Your task to perform on an android device: turn off picture-in-picture Image 0: 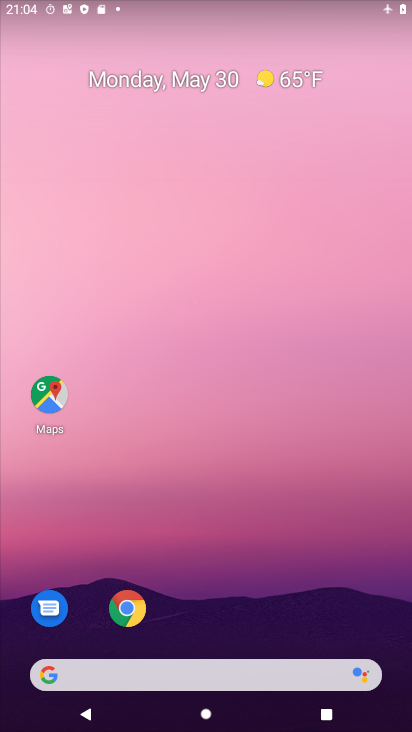
Step 0: click (130, 609)
Your task to perform on an android device: turn off picture-in-picture Image 1: 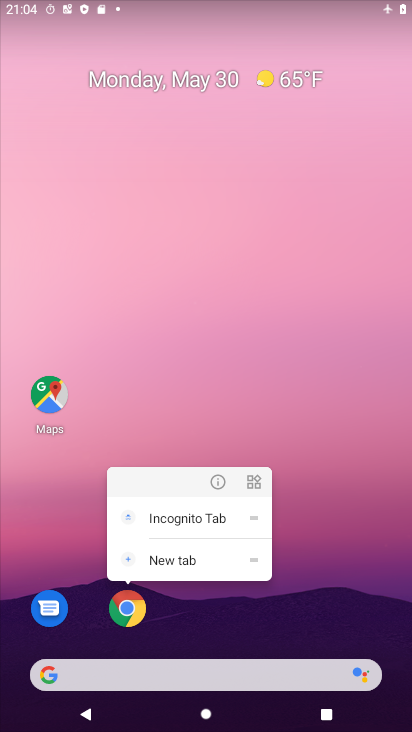
Step 1: click (214, 489)
Your task to perform on an android device: turn off picture-in-picture Image 2: 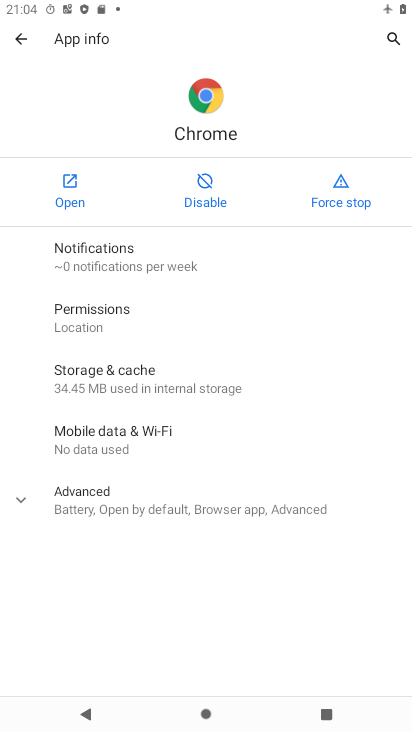
Step 2: click (123, 496)
Your task to perform on an android device: turn off picture-in-picture Image 3: 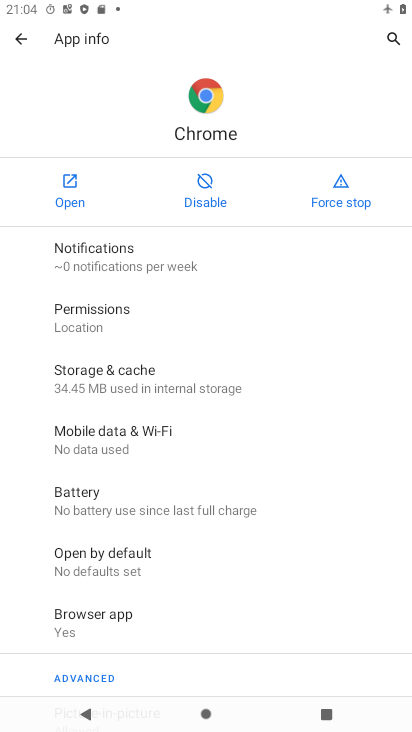
Step 3: drag from (146, 620) to (166, 357)
Your task to perform on an android device: turn off picture-in-picture Image 4: 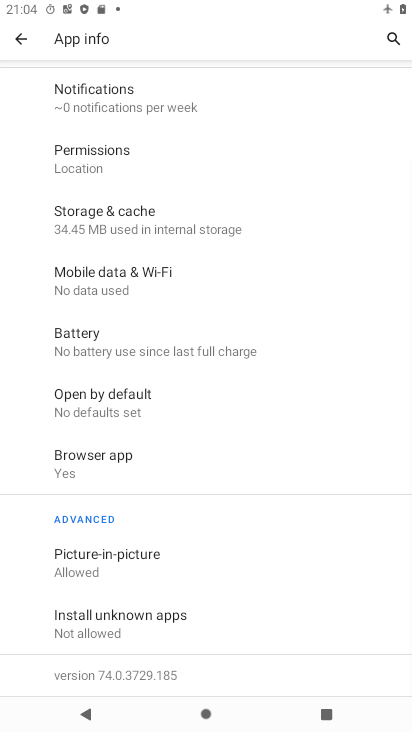
Step 4: click (116, 572)
Your task to perform on an android device: turn off picture-in-picture Image 5: 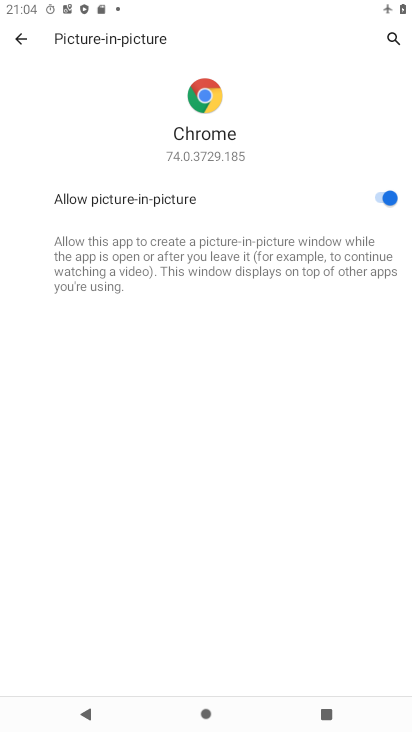
Step 5: click (385, 197)
Your task to perform on an android device: turn off picture-in-picture Image 6: 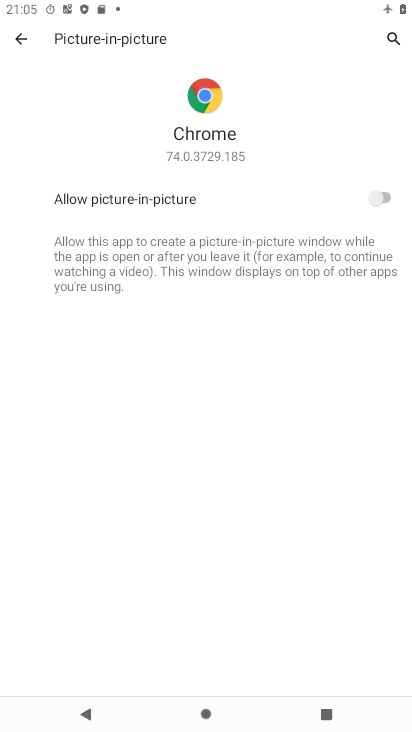
Step 6: task complete